Your task to perform on an android device: empty trash in the gmail app Image 0: 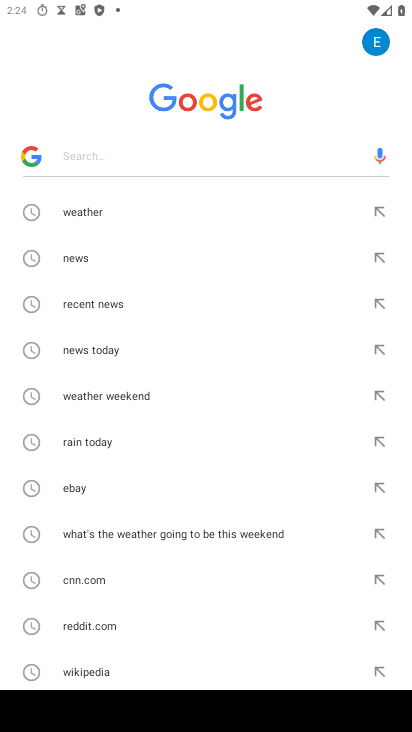
Step 0: press home button
Your task to perform on an android device: empty trash in the gmail app Image 1: 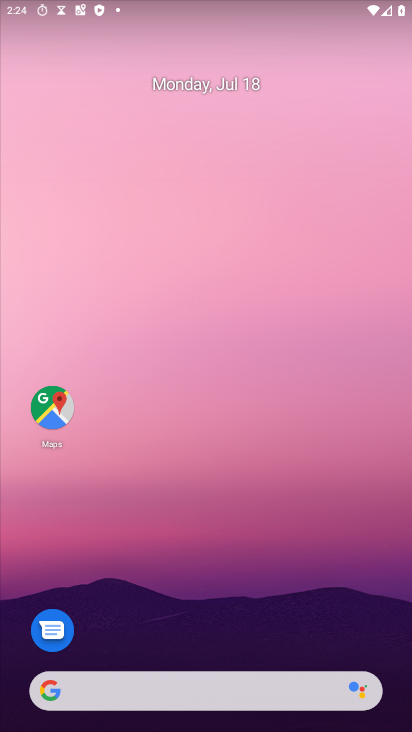
Step 1: drag from (297, 588) to (322, 104)
Your task to perform on an android device: empty trash in the gmail app Image 2: 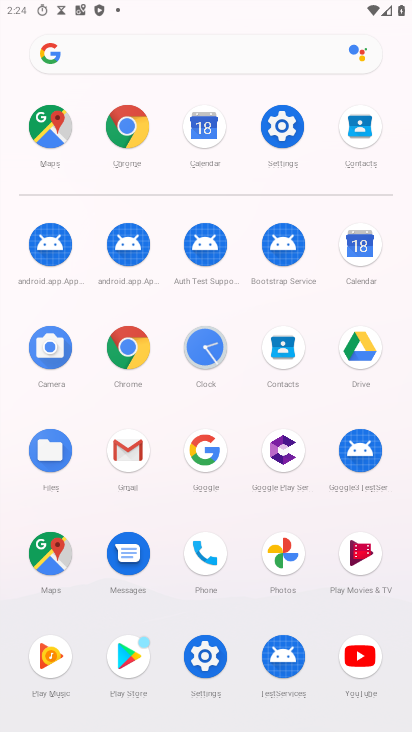
Step 2: click (137, 445)
Your task to perform on an android device: empty trash in the gmail app Image 3: 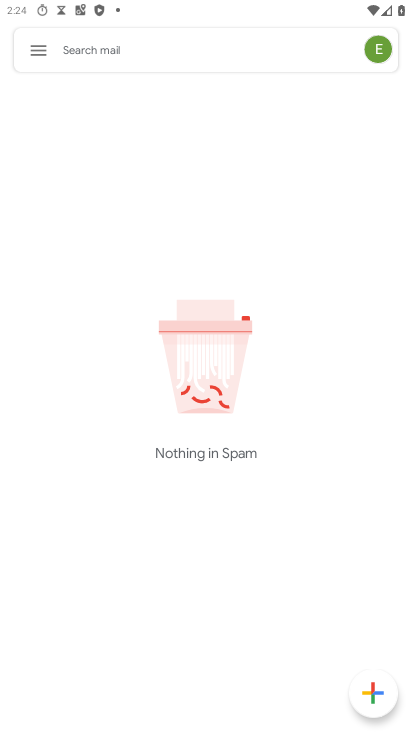
Step 3: click (40, 55)
Your task to perform on an android device: empty trash in the gmail app Image 4: 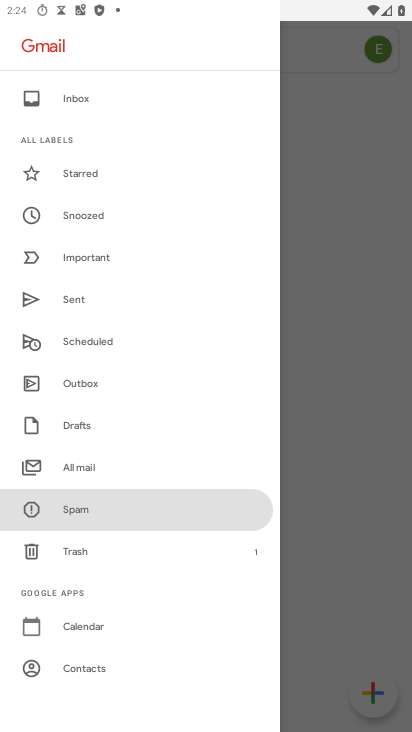
Step 4: click (76, 542)
Your task to perform on an android device: empty trash in the gmail app Image 5: 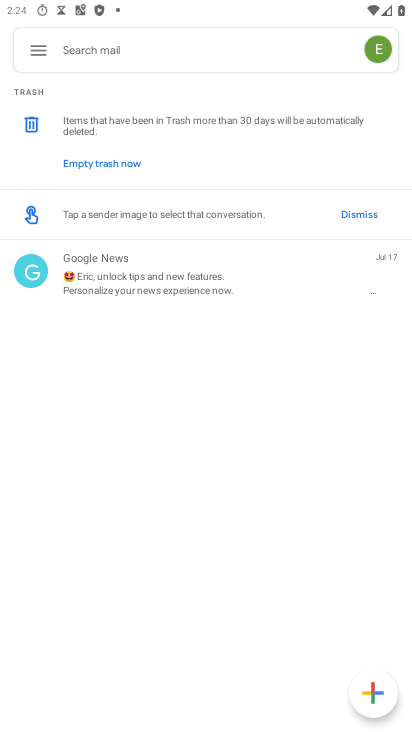
Step 5: task complete